Your task to perform on an android device: Clear the shopping cart on walmart. Search for macbook on walmart, select the first entry, and add it to the cart. Image 0: 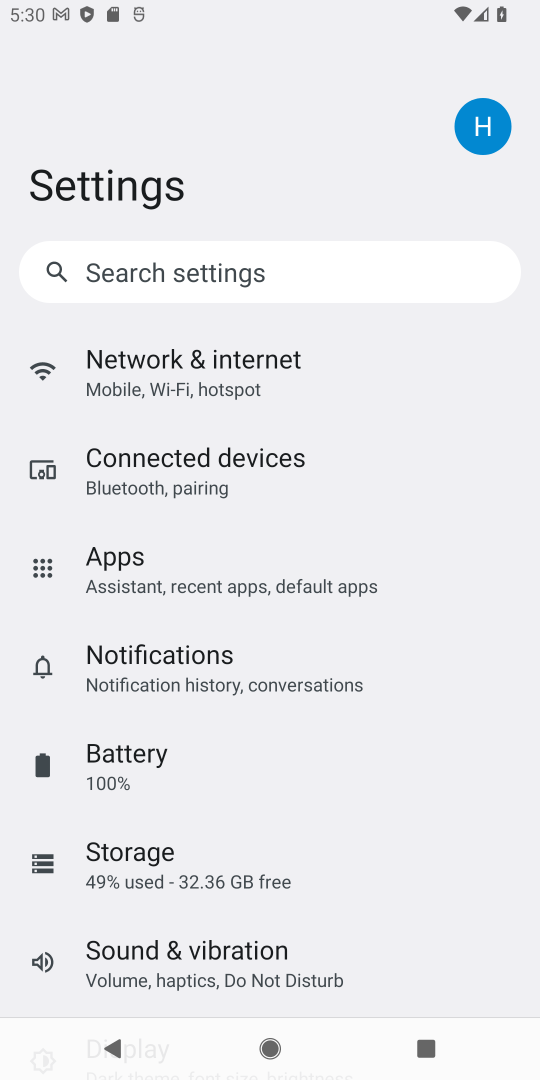
Step 0: press home button
Your task to perform on an android device: Clear the shopping cart on walmart. Search for macbook on walmart, select the first entry, and add it to the cart. Image 1: 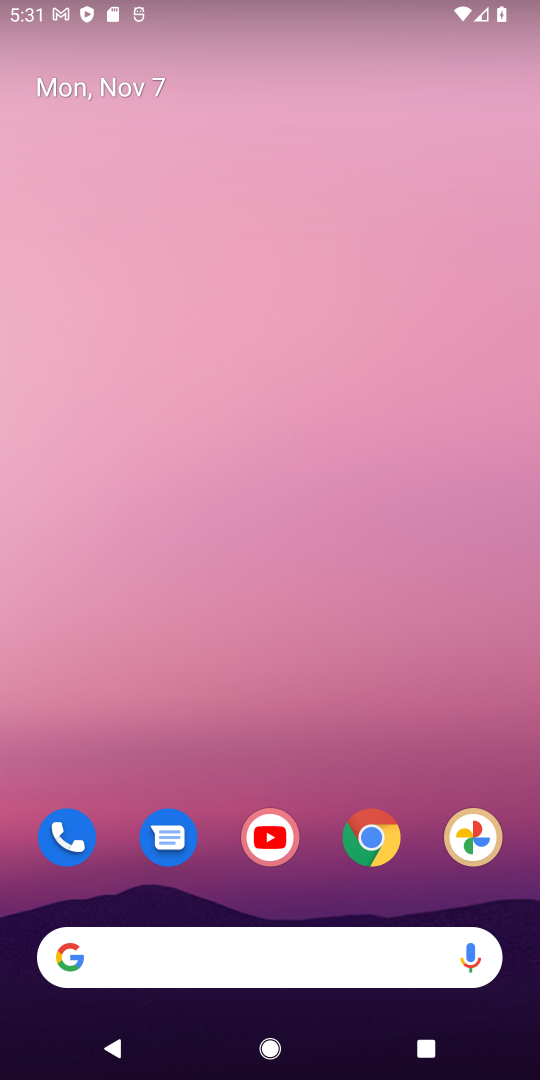
Step 1: click (378, 830)
Your task to perform on an android device: Clear the shopping cart on walmart. Search for macbook on walmart, select the first entry, and add it to the cart. Image 2: 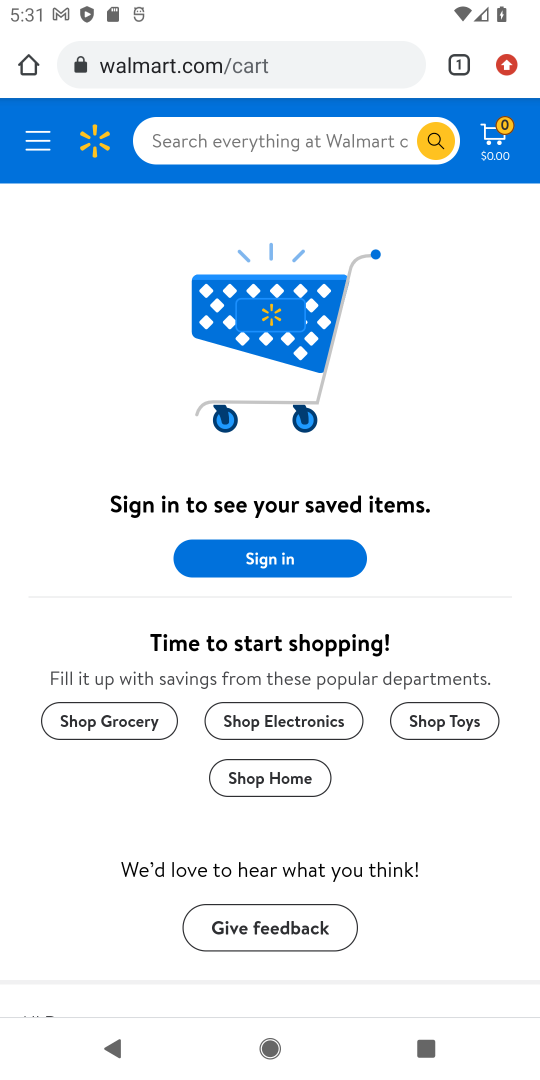
Step 2: click (269, 79)
Your task to perform on an android device: Clear the shopping cart on walmart. Search for macbook on walmart, select the first entry, and add it to the cart. Image 3: 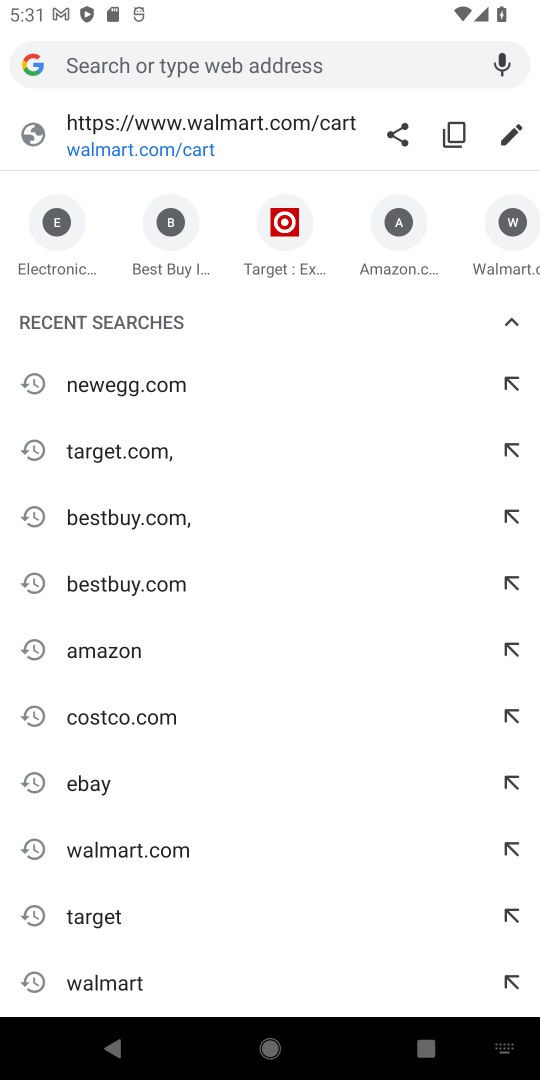
Step 3: type "walmart"
Your task to perform on an android device: Clear the shopping cart on walmart. Search for macbook on walmart, select the first entry, and add it to the cart. Image 4: 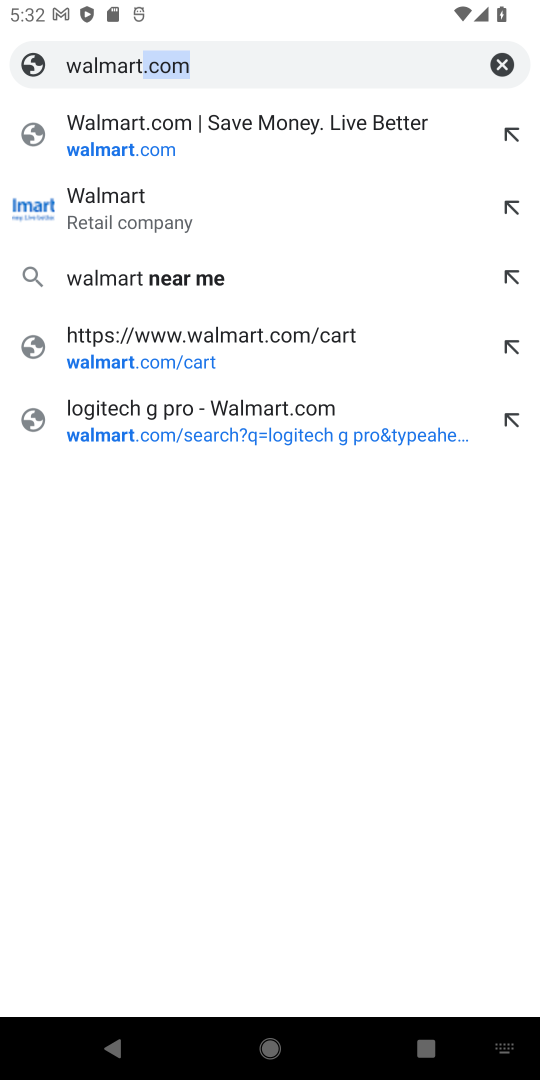
Step 4: click (199, 130)
Your task to perform on an android device: Clear the shopping cart on walmart. Search for macbook on walmart, select the first entry, and add it to the cart. Image 5: 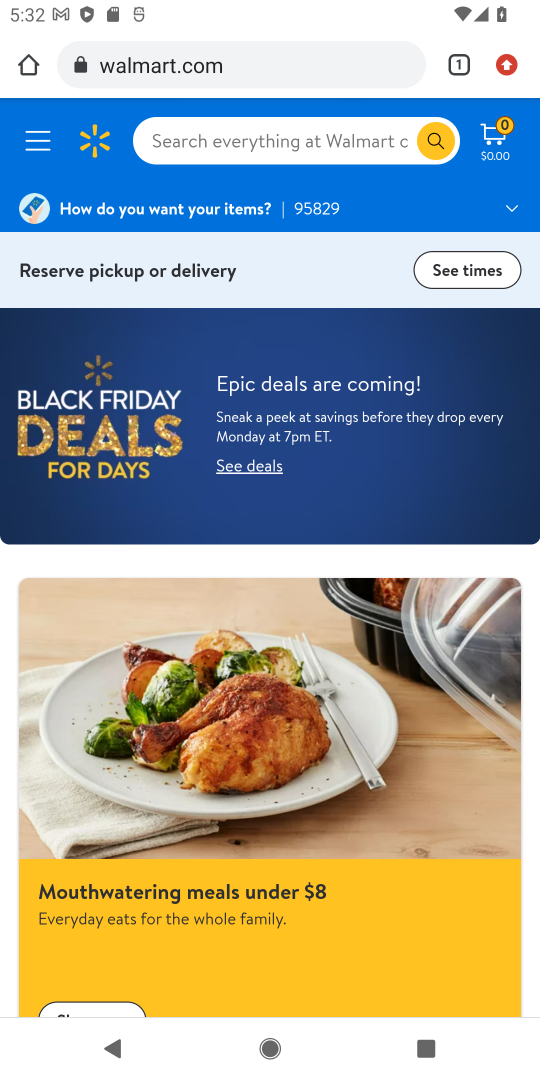
Step 5: click (271, 127)
Your task to perform on an android device: Clear the shopping cart on walmart. Search for macbook on walmart, select the first entry, and add it to the cart. Image 6: 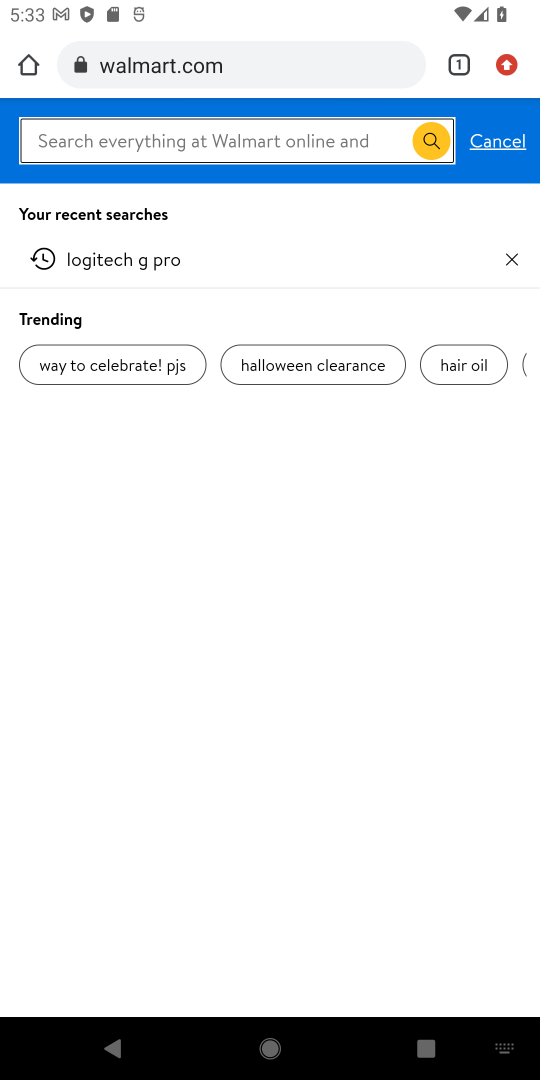
Step 6: click (491, 153)
Your task to perform on an android device: Clear the shopping cart on walmart. Search for macbook on walmart, select the first entry, and add it to the cart. Image 7: 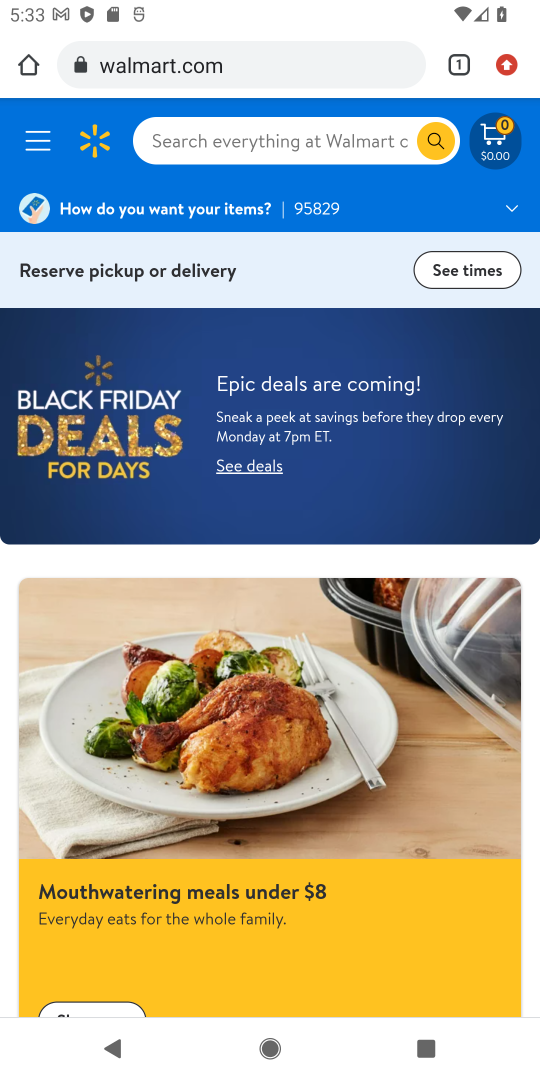
Step 7: click (500, 135)
Your task to perform on an android device: Clear the shopping cart on walmart. Search for macbook on walmart, select the first entry, and add it to the cart. Image 8: 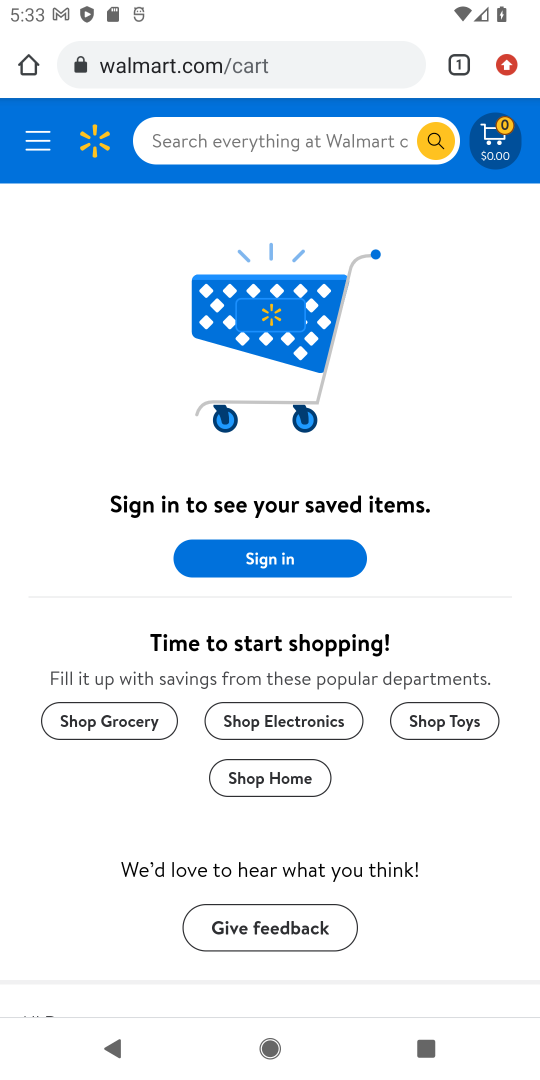
Step 8: task complete